Your task to perform on an android device: Check the news Image 0: 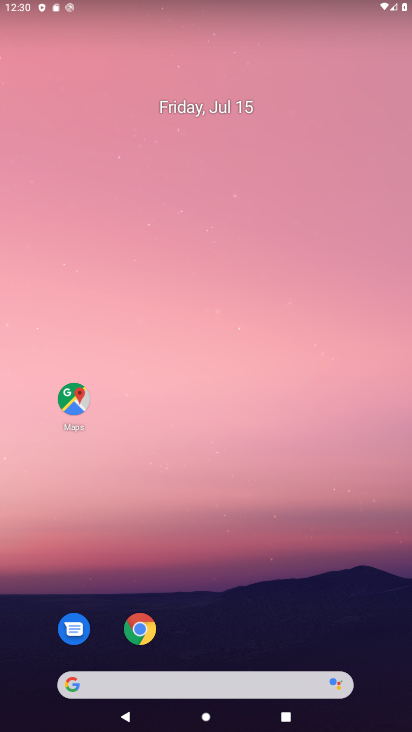
Step 0: drag from (275, 684) to (279, 155)
Your task to perform on an android device: Check the news Image 1: 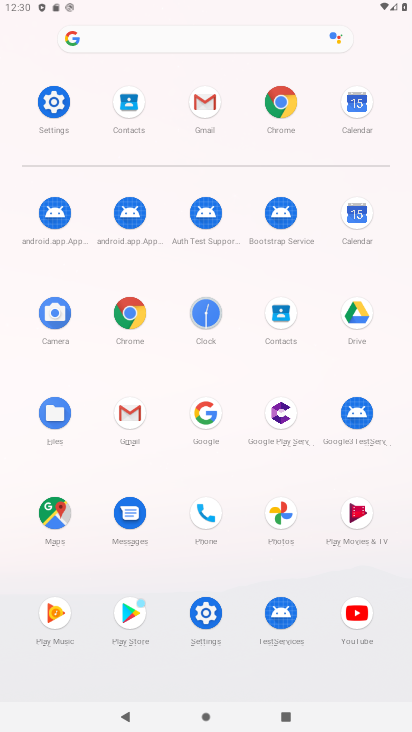
Step 1: click (281, 105)
Your task to perform on an android device: Check the news Image 2: 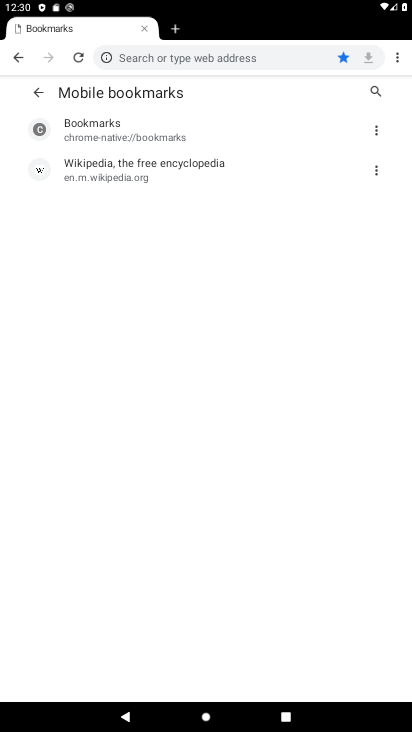
Step 2: click (213, 55)
Your task to perform on an android device: Check the news Image 3: 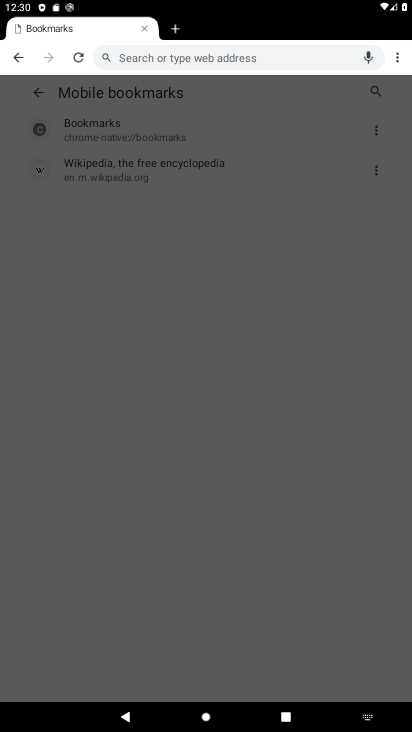
Step 3: type "news"
Your task to perform on an android device: Check the news Image 4: 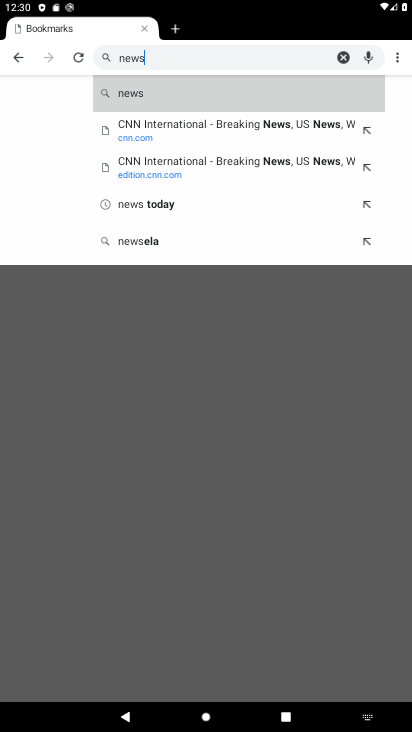
Step 4: click (133, 92)
Your task to perform on an android device: Check the news Image 5: 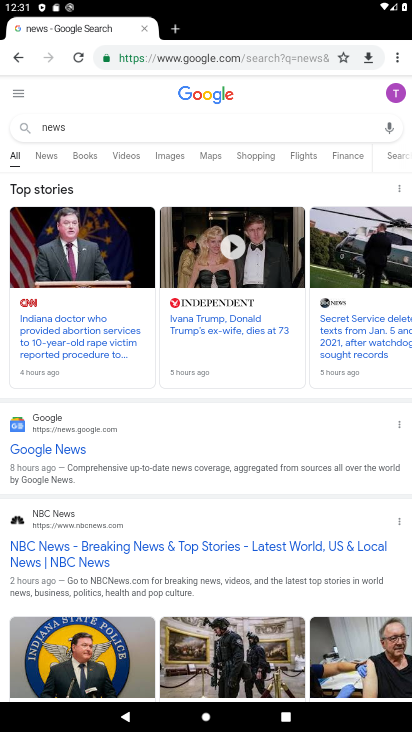
Step 5: click (53, 444)
Your task to perform on an android device: Check the news Image 6: 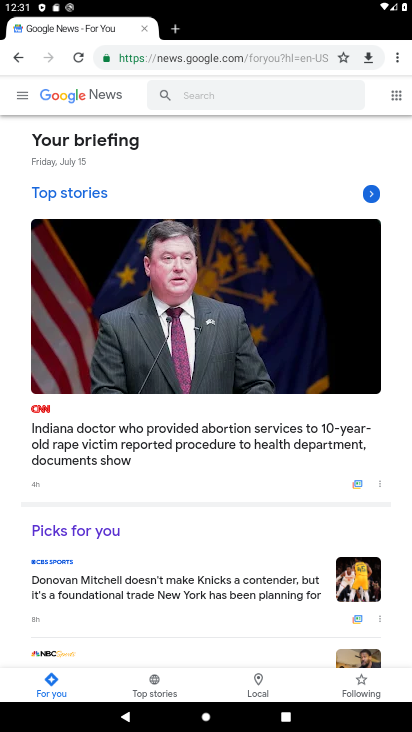
Step 6: task complete